Your task to perform on an android device: Open Google Chrome Image 0: 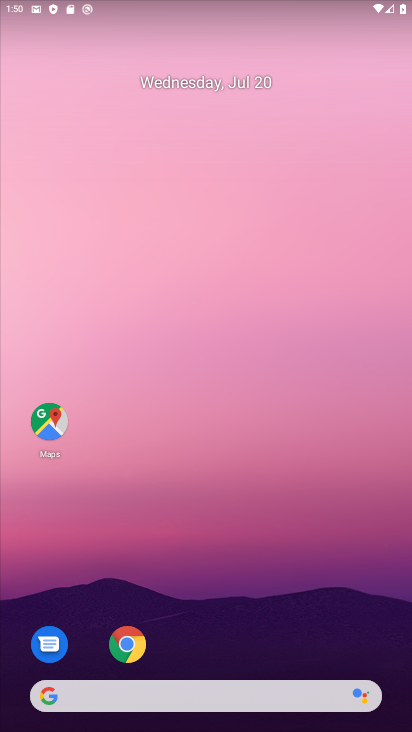
Step 0: press home button
Your task to perform on an android device: Open Google Chrome Image 1: 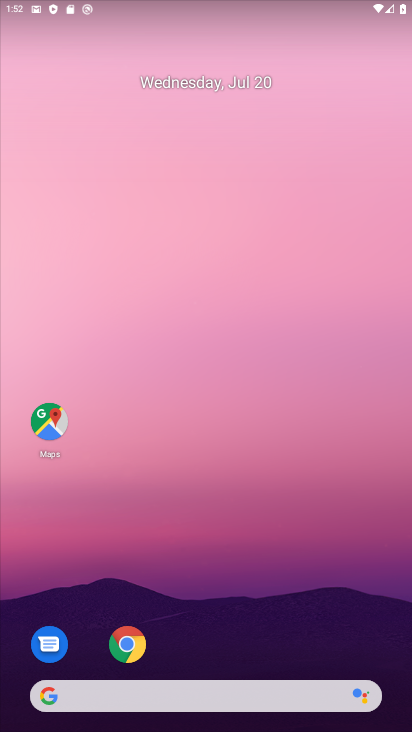
Step 1: click (116, 652)
Your task to perform on an android device: Open Google Chrome Image 2: 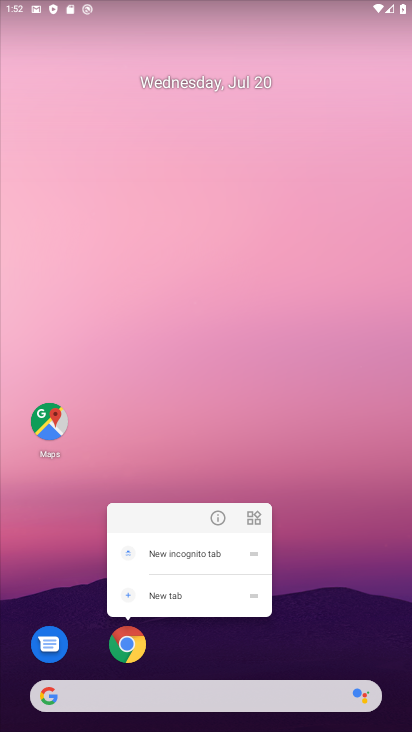
Step 2: click (132, 651)
Your task to perform on an android device: Open Google Chrome Image 3: 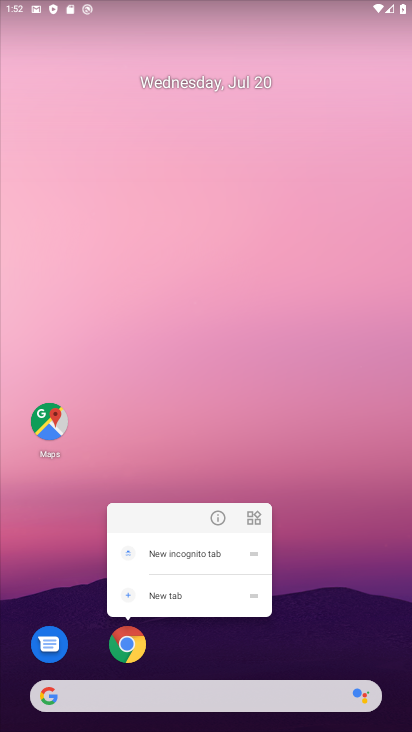
Step 3: click (132, 651)
Your task to perform on an android device: Open Google Chrome Image 4: 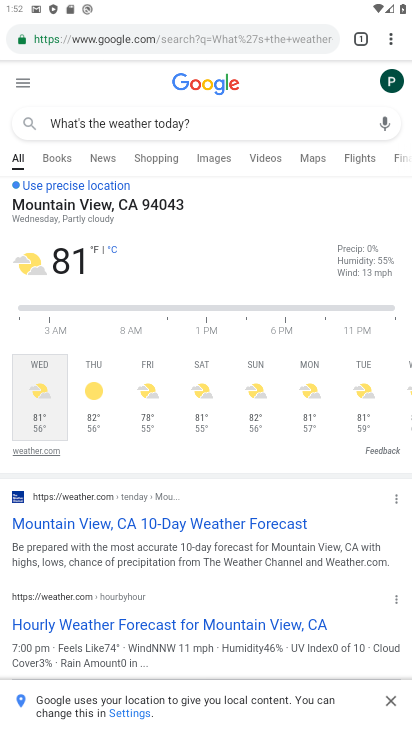
Step 4: task complete